Your task to perform on an android device: empty trash in google photos Image 0: 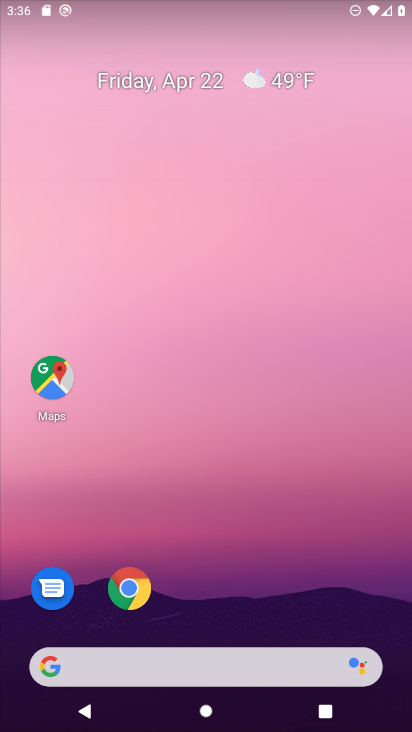
Step 0: drag from (205, 443) to (250, 85)
Your task to perform on an android device: empty trash in google photos Image 1: 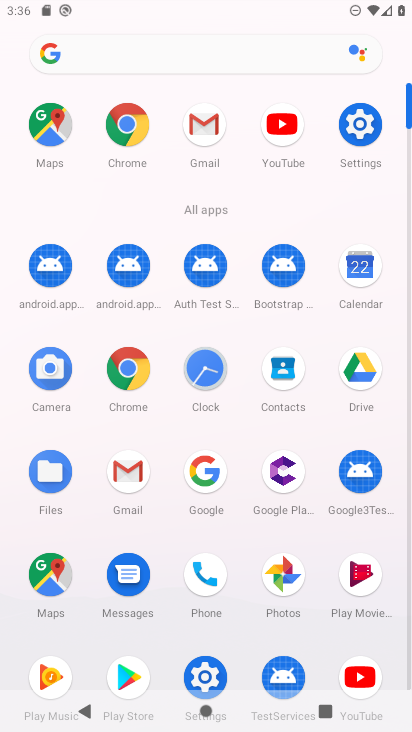
Step 1: click (288, 554)
Your task to perform on an android device: empty trash in google photos Image 2: 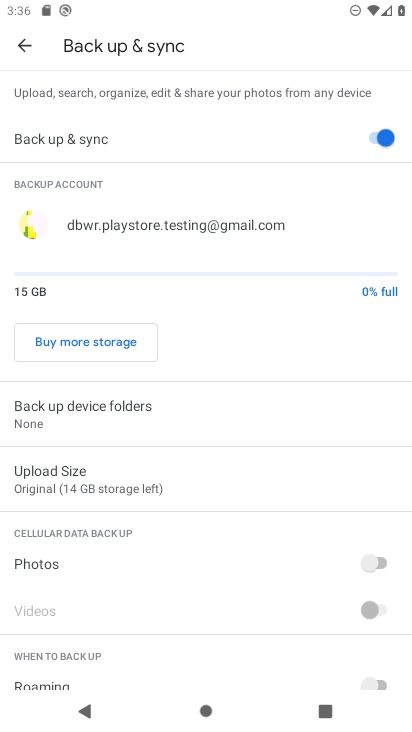
Step 2: click (24, 38)
Your task to perform on an android device: empty trash in google photos Image 3: 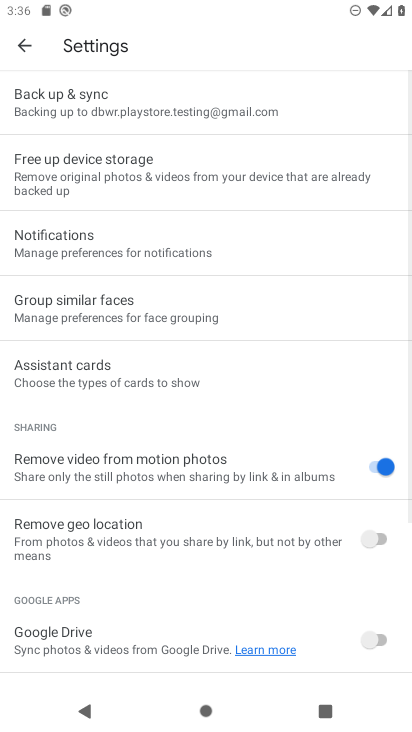
Step 3: click (42, 38)
Your task to perform on an android device: empty trash in google photos Image 4: 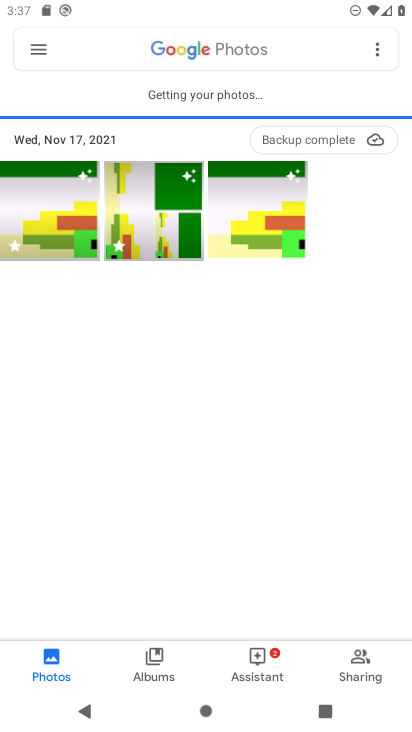
Step 4: click (37, 54)
Your task to perform on an android device: empty trash in google photos Image 5: 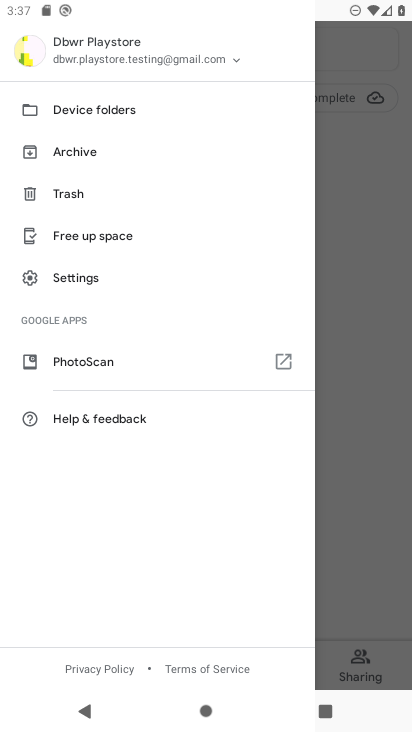
Step 5: click (71, 193)
Your task to perform on an android device: empty trash in google photos Image 6: 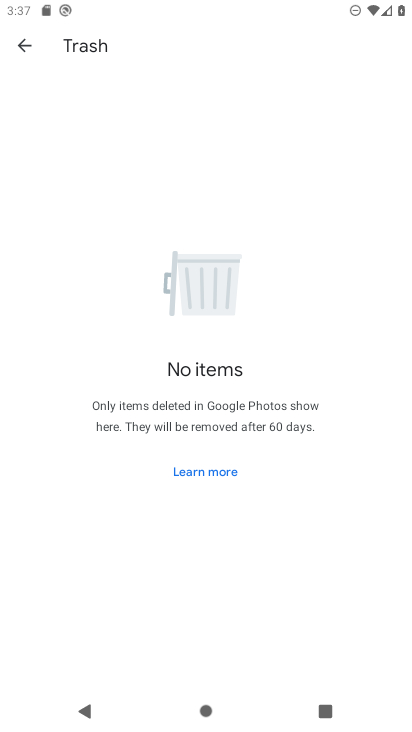
Step 6: task complete